Your task to perform on an android device: turn off wifi Image 0: 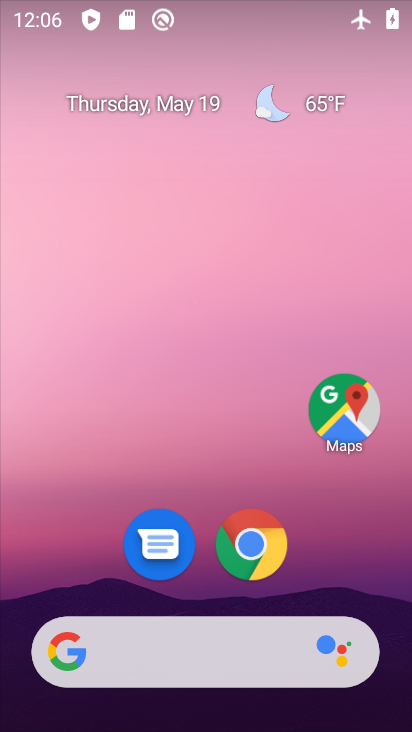
Step 0: drag from (358, 551) to (377, 181)
Your task to perform on an android device: turn off wifi Image 1: 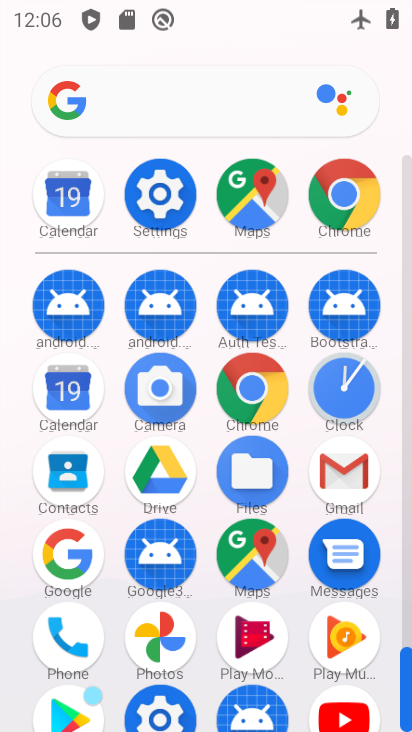
Step 1: click (180, 201)
Your task to perform on an android device: turn off wifi Image 2: 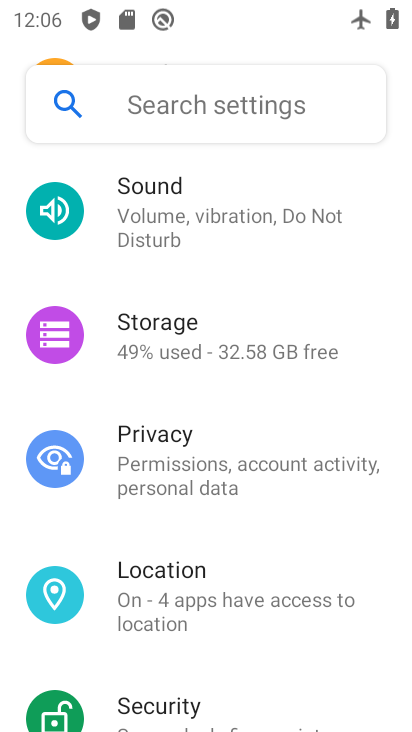
Step 2: drag from (340, 654) to (342, 487)
Your task to perform on an android device: turn off wifi Image 3: 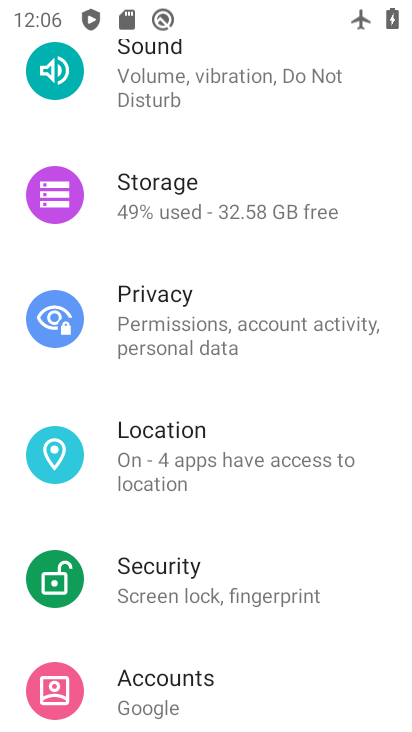
Step 3: drag from (358, 646) to (347, 485)
Your task to perform on an android device: turn off wifi Image 4: 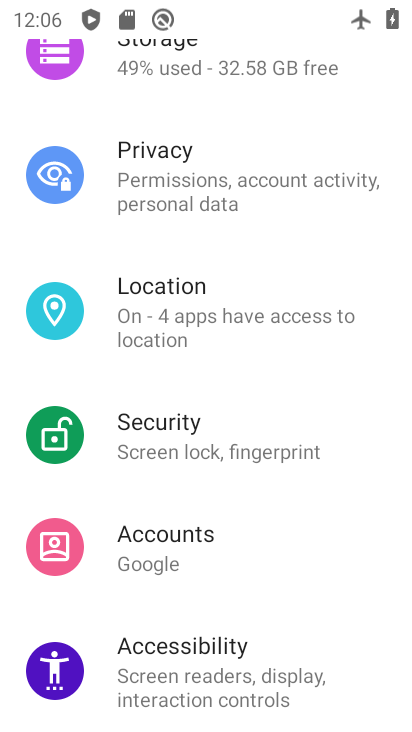
Step 4: drag from (344, 652) to (331, 499)
Your task to perform on an android device: turn off wifi Image 5: 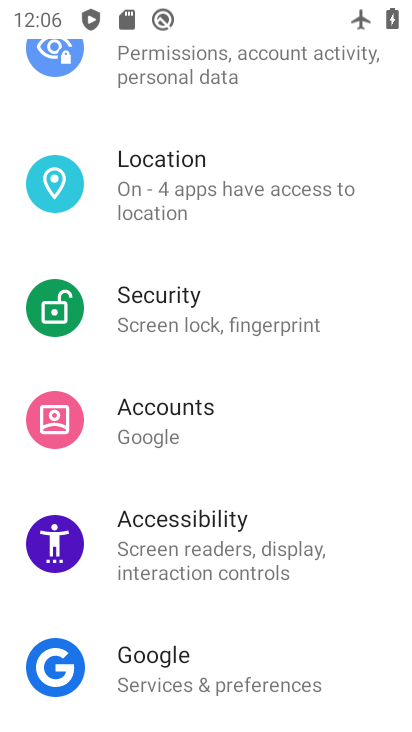
Step 5: drag from (351, 668) to (346, 505)
Your task to perform on an android device: turn off wifi Image 6: 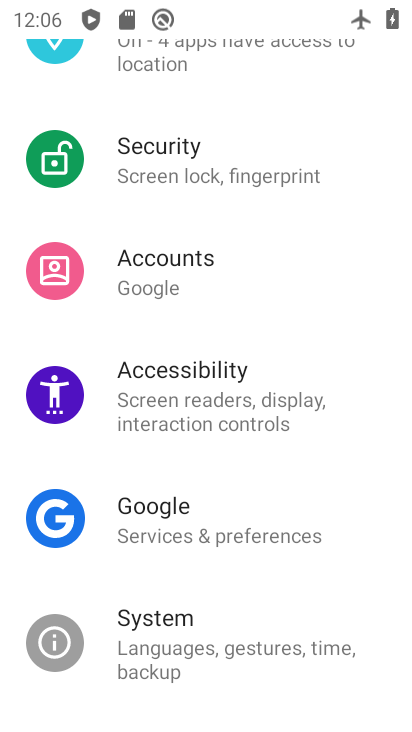
Step 6: drag from (316, 692) to (323, 503)
Your task to perform on an android device: turn off wifi Image 7: 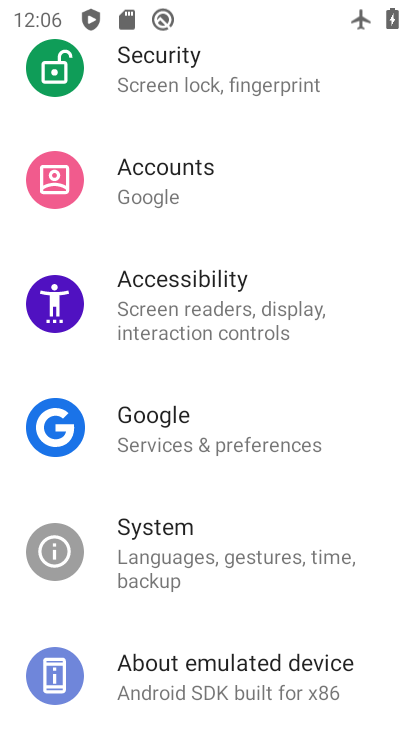
Step 7: drag from (353, 366) to (346, 583)
Your task to perform on an android device: turn off wifi Image 8: 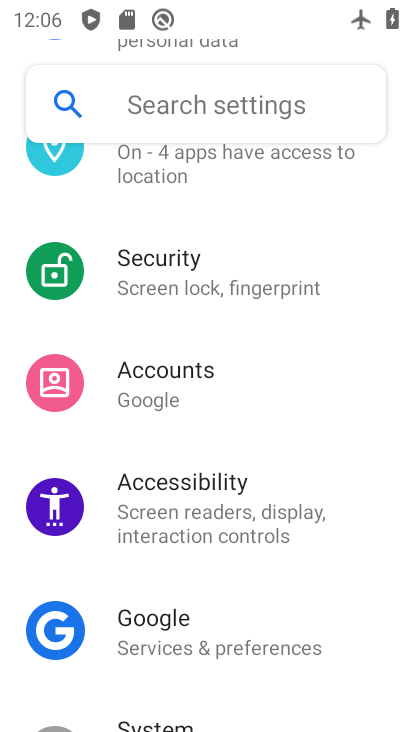
Step 8: drag from (336, 367) to (339, 508)
Your task to perform on an android device: turn off wifi Image 9: 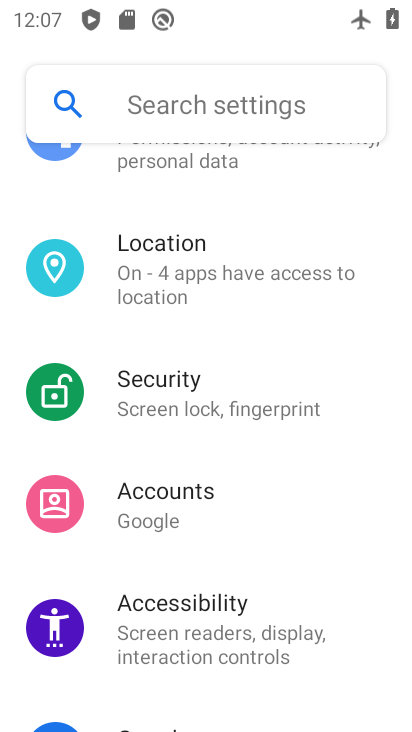
Step 9: drag from (354, 326) to (357, 433)
Your task to perform on an android device: turn off wifi Image 10: 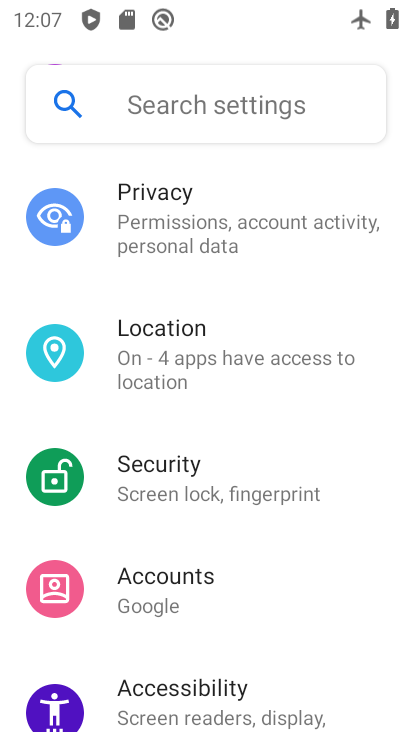
Step 10: drag from (343, 301) to (340, 441)
Your task to perform on an android device: turn off wifi Image 11: 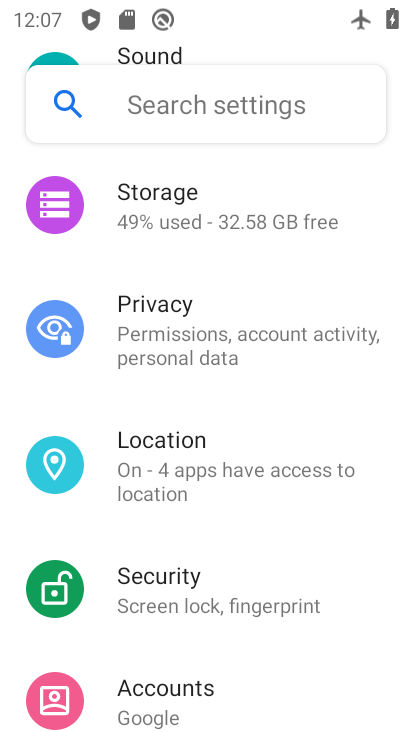
Step 11: drag from (343, 279) to (335, 406)
Your task to perform on an android device: turn off wifi Image 12: 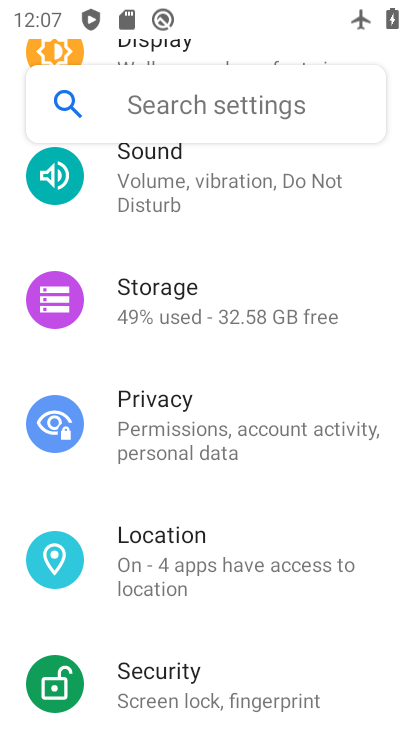
Step 12: drag from (329, 283) to (330, 416)
Your task to perform on an android device: turn off wifi Image 13: 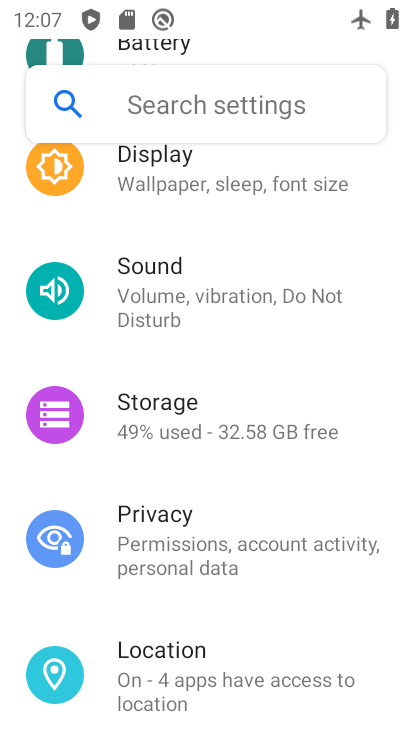
Step 13: drag from (325, 247) to (315, 394)
Your task to perform on an android device: turn off wifi Image 14: 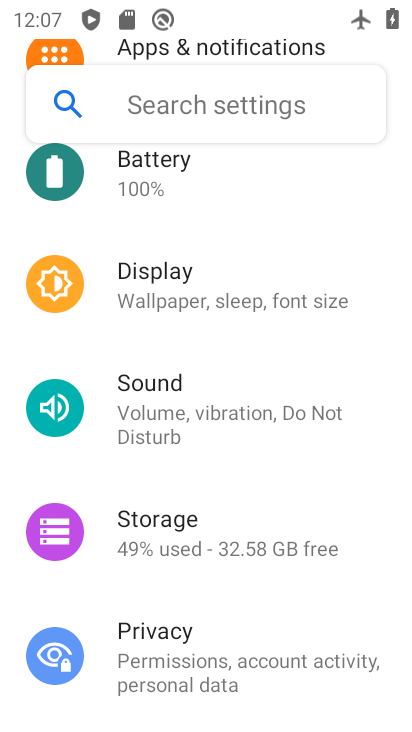
Step 14: drag from (317, 227) to (319, 381)
Your task to perform on an android device: turn off wifi Image 15: 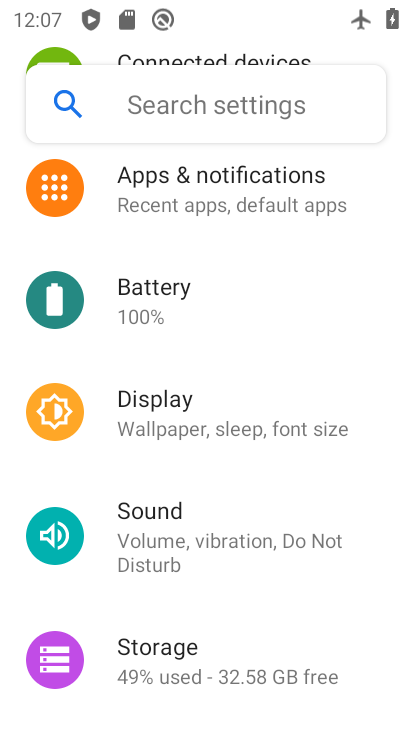
Step 15: drag from (317, 250) to (315, 379)
Your task to perform on an android device: turn off wifi Image 16: 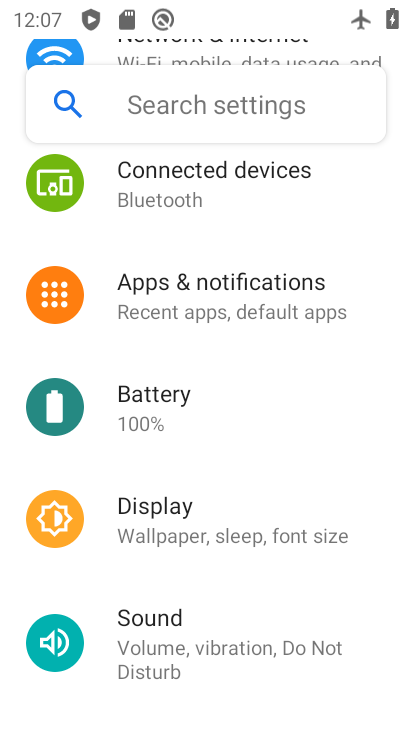
Step 16: drag from (299, 206) to (293, 363)
Your task to perform on an android device: turn off wifi Image 17: 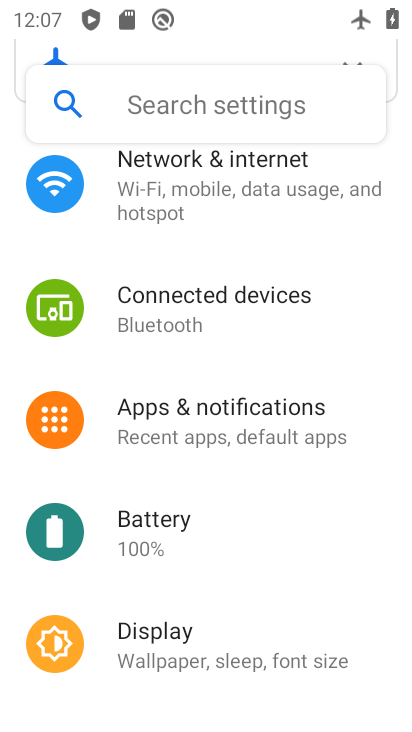
Step 17: drag from (280, 173) to (286, 321)
Your task to perform on an android device: turn off wifi Image 18: 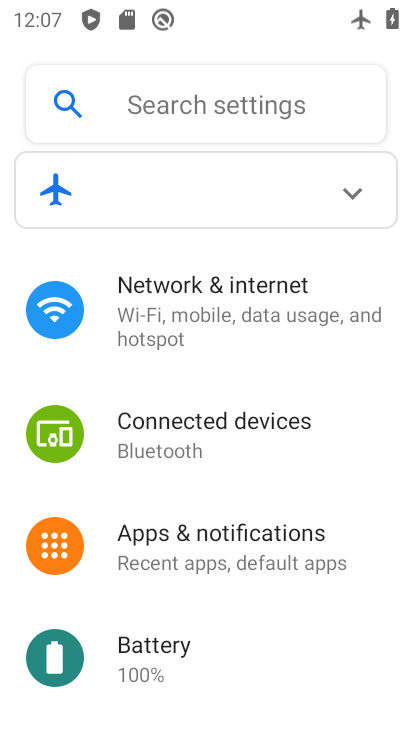
Step 18: click (226, 316)
Your task to perform on an android device: turn off wifi Image 19: 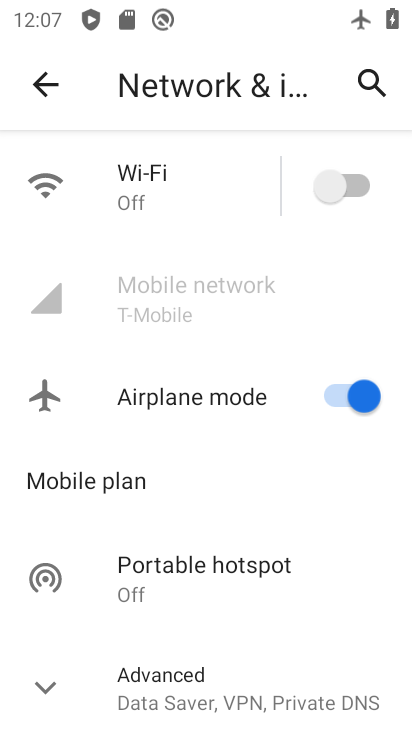
Step 19: task complete